Your task to perform on an android device: change your default location settings in chrome Image 0: 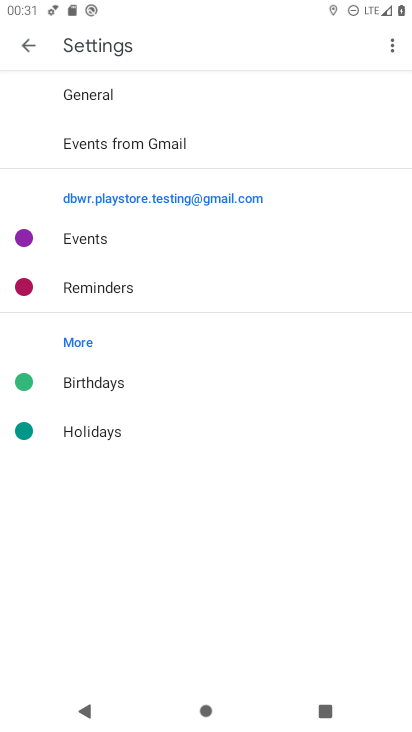
Step 0: press home button
Your task to perform on an android device: change your default location settings in chrome Image 1: 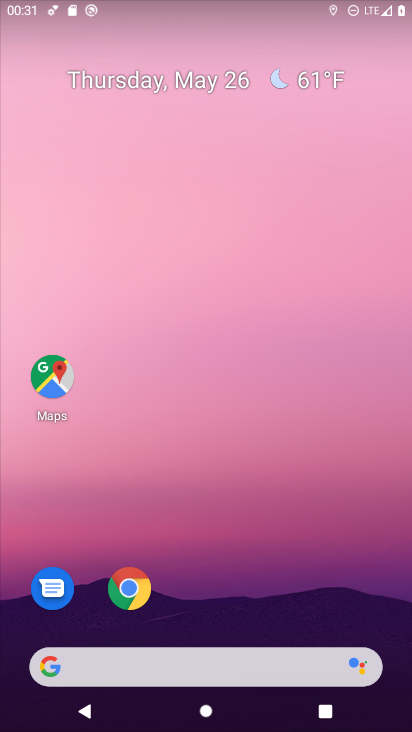
Step 1: click (134, 589)
Your task to perform on an android device: change your default location settings in chrome Image 2: 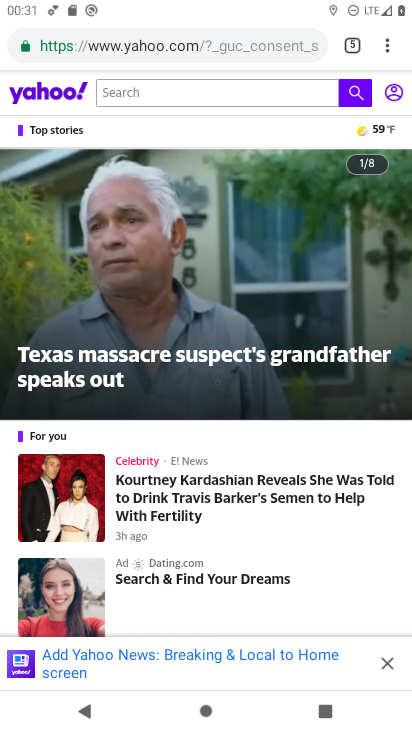
Step 2: click (383, 51)
Your task to perform on an android device: change your default location settings in chrome Image 3: 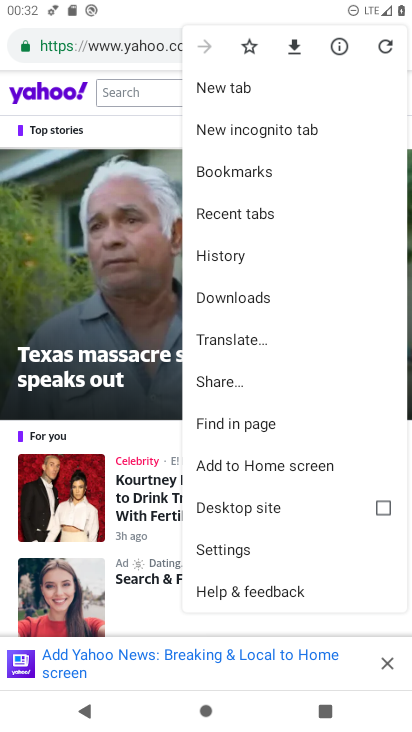
Step 3: click (231, 546)
Your task to perform on an android device: change your default location settings in chrome Image 4: 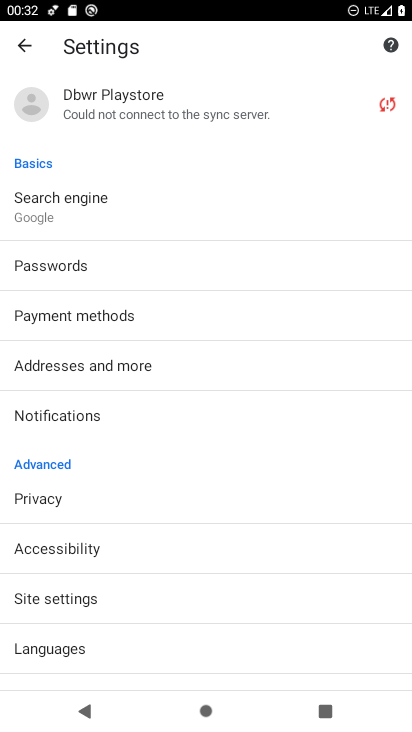
Step 4: click (69, 598)
Your task to perform on an android device: change your default location settings in chrome Image 5: 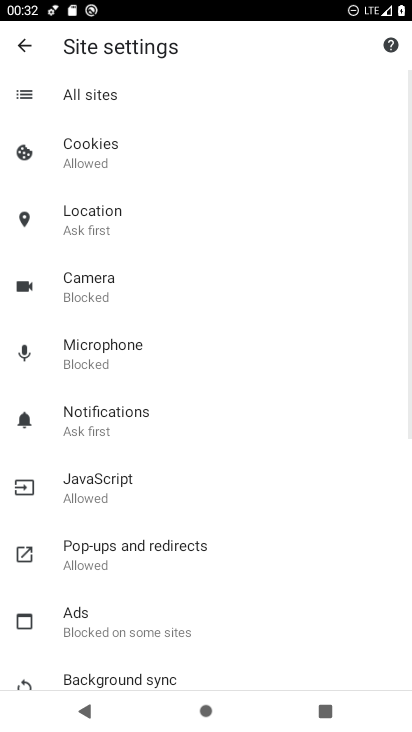
Step 5: click (88, 218)
Your task to perform on an android device: change your default location settings in chrome Image 6: 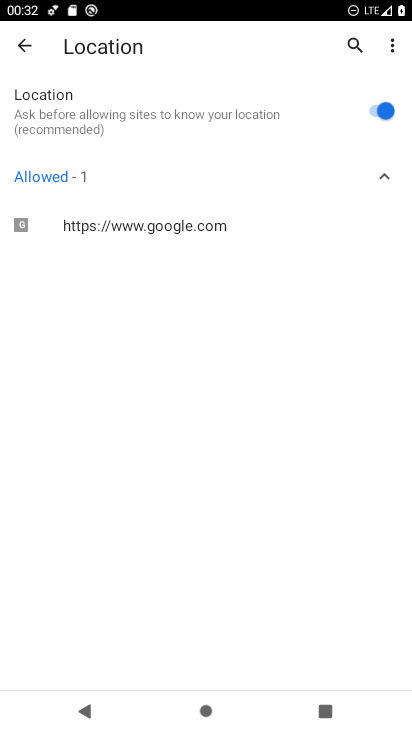
Step 6: click (382, 118)
Your task to perform on an android device: change your default location settings in chrome Image 7: 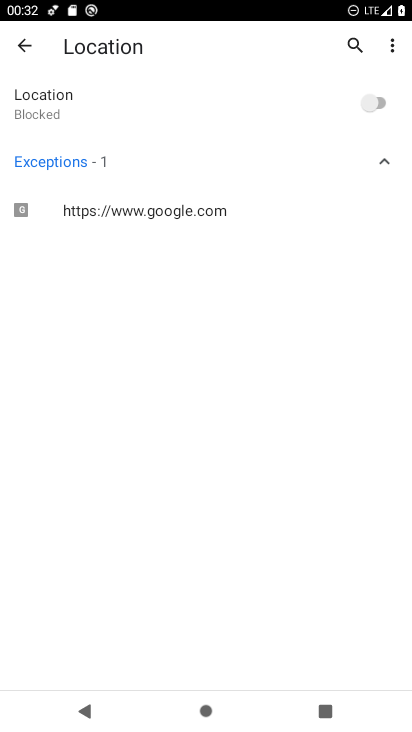
Step 7: task complete